Your task to perform on an android device: see creations saved in the google photos Image 0: 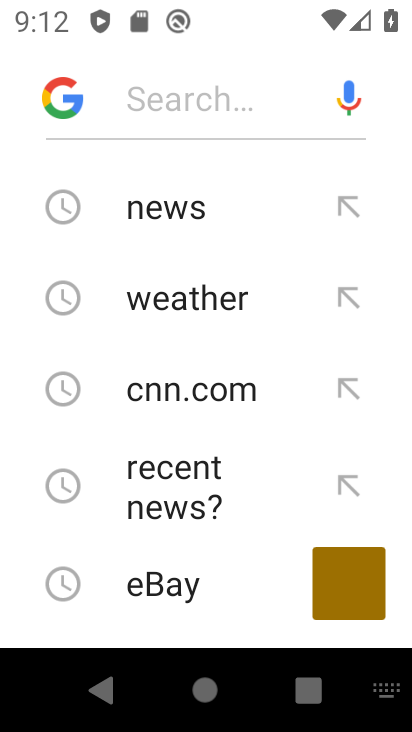
Step 0: press back button
Your task to perform on an android device: see creations saved in the google photos Image 1: 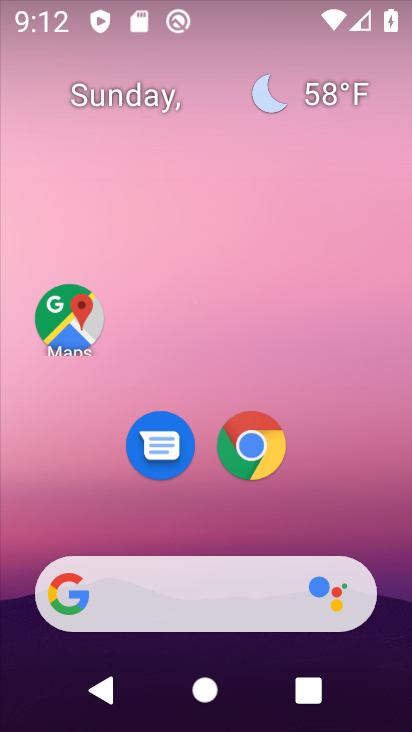
Step 1: drag from (208, 569) to (152, 9)
Your task to perform on an android device: see creations saved in the google photos Image 2: 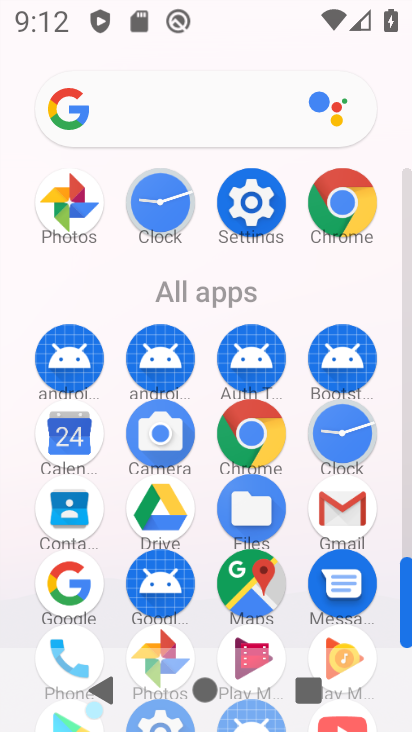
Step 2: drag from (218, 612) to (213, 116)
Your task to perform on an android device: see creations saved in the google photos Image 3: 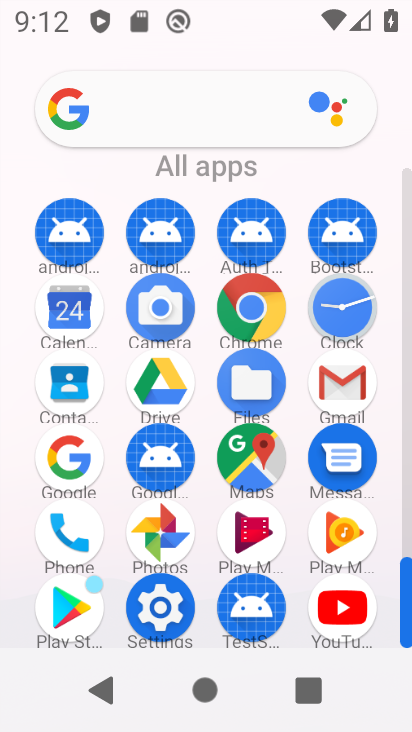
Step 3: click (154, 521)
Your task to perform on an android device: see creations saved in the google photos Image 4: 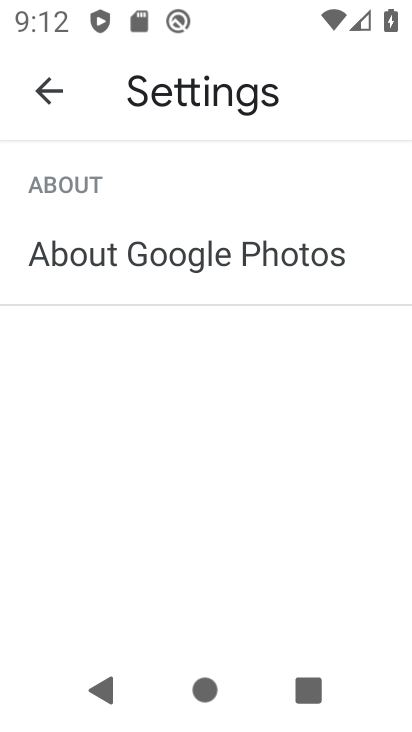
Step 4: click (50, 91)
Your task to perform on an android device: see creations saved in the google photos Image 5: 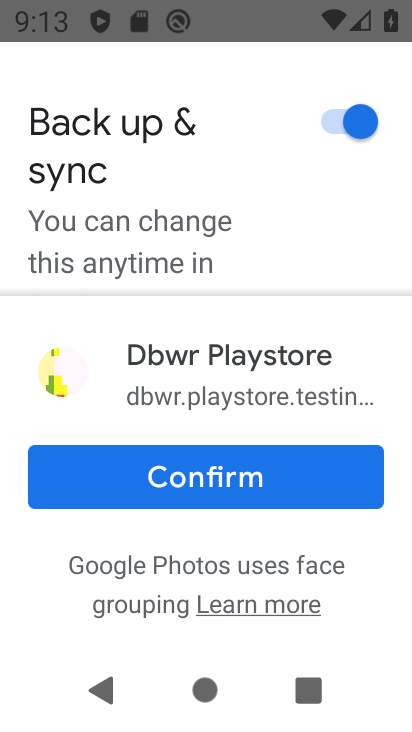
Step 5: click (279, 490)
Your task to perform on an android device: see creations saved in the google photos Image 6: 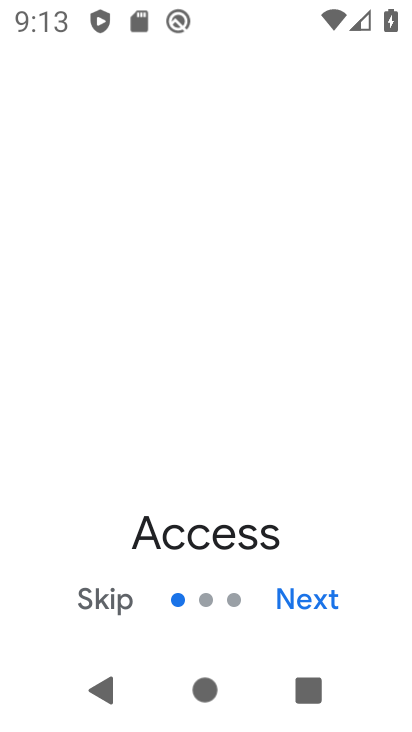
Step 6: click (306, 590)
Your task to perform on an android device: see creations saved in the google photos Image 7: 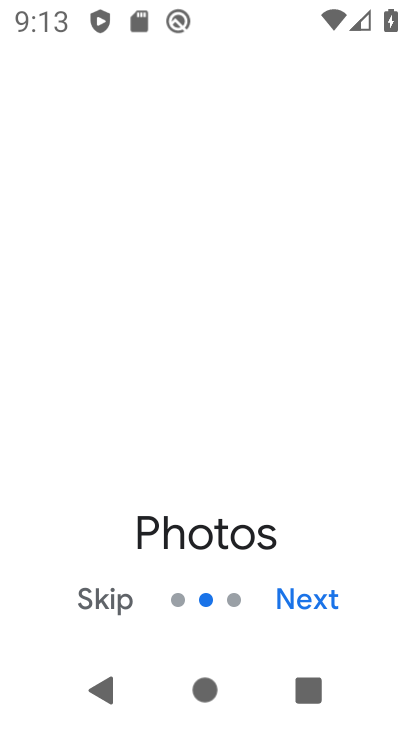
Step 7: click (113, 599)
Your task to perform on an android device: see creations saved in the google photos Image 8: 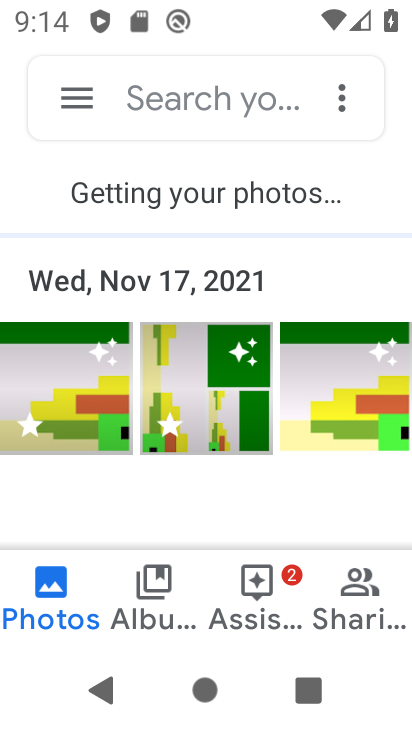
Step 8: click (351, 611)
Your task to perform on an android device: see creations saved in the google photos Image 9: 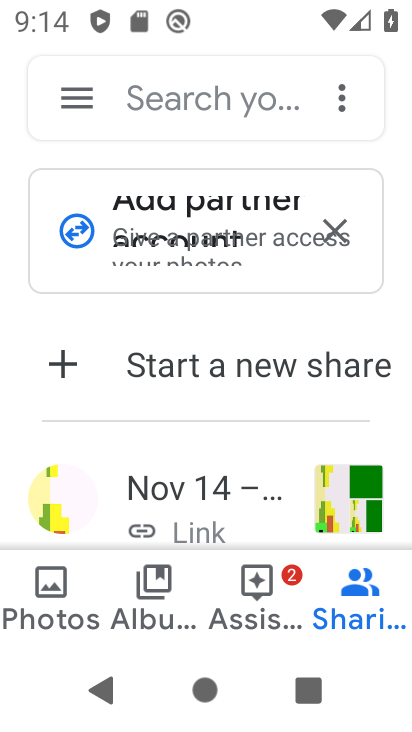
Step 9: task complete